Your task to perform on an android device: turn on priority inbox in the gmail app Image 0: 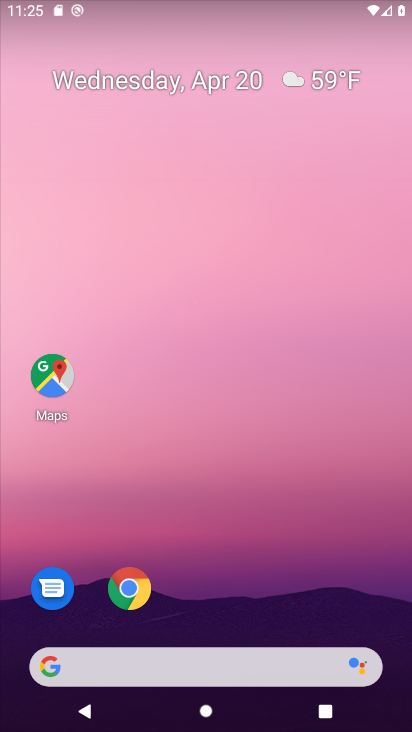
Step 0: drag from (384, 621) to (325, 245)
Your task to perform on an android device: turn on priority inbox in the gmail app Image 1: 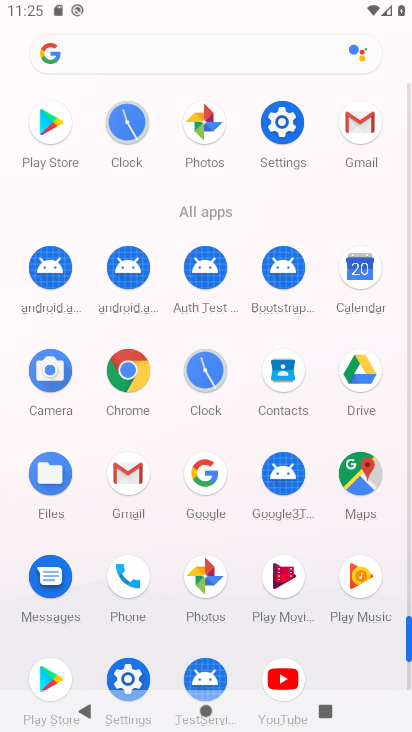
Step 1: click (124, 473)
Your task to perform on an android device: turn on priority inbox in the gmail app Image 2: 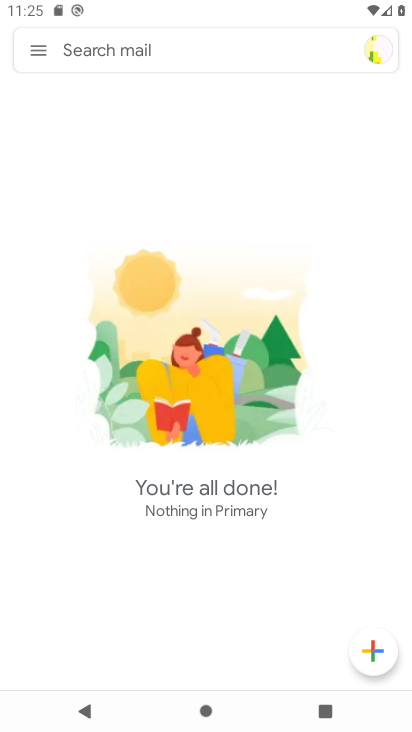
Step 2: click (40, 49)
Your task to perform on an android device: turn on priority inbox in the gmail app Image 3: 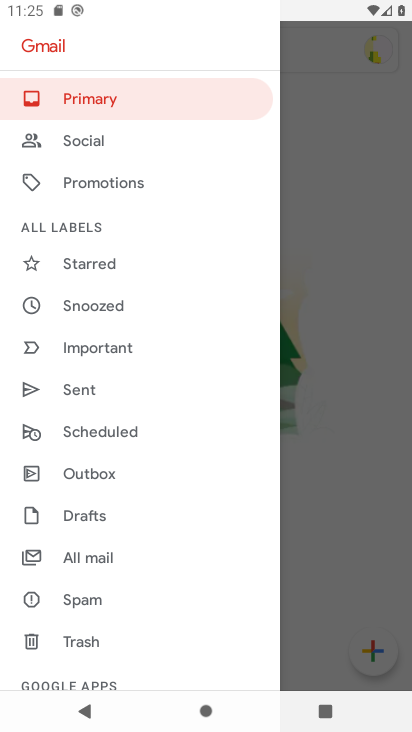
Step 3: drag from (165, 598) to (187, 429)
Your task to perform on an android device: turn on priority inbox in the gmail app Image 4: 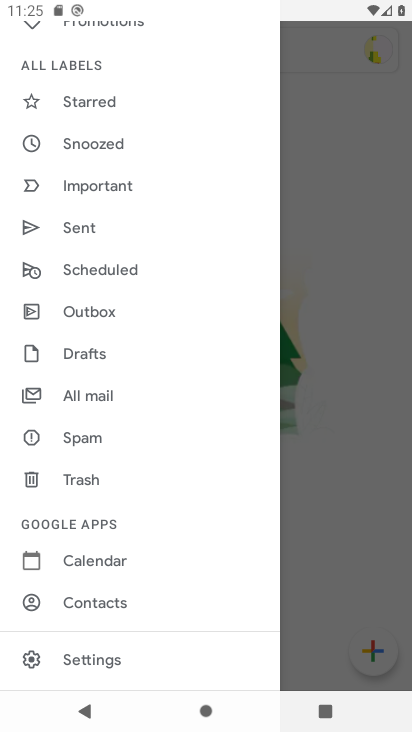
Step 4: click (89, 652)
Your task to perform on an android device: turn on priority inbox in the gmail app Image 5: 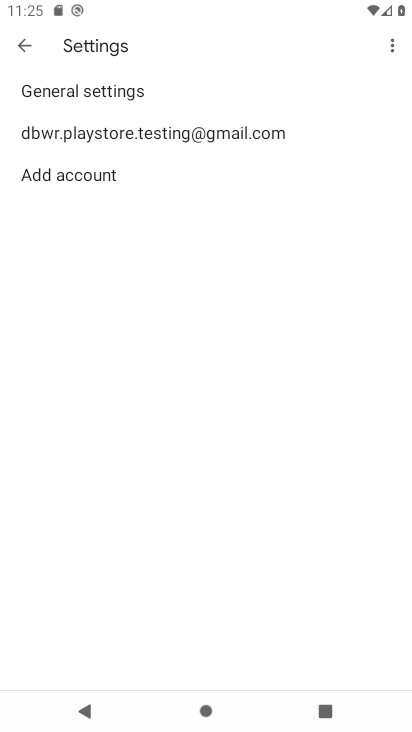
Step 5: click (154, 132)
Your task to perform on an android device: turn on priority inbox in the gmail app Image 6: 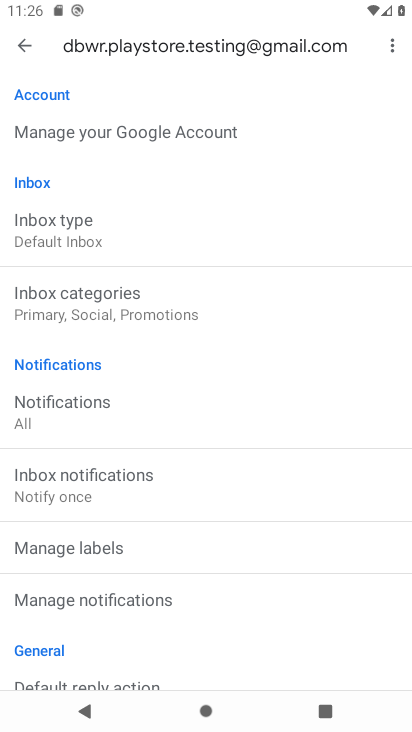
Step 6: click (53, 238)
Your task to perform on an android device: turn on priority inbox in the gmail app Image 7: 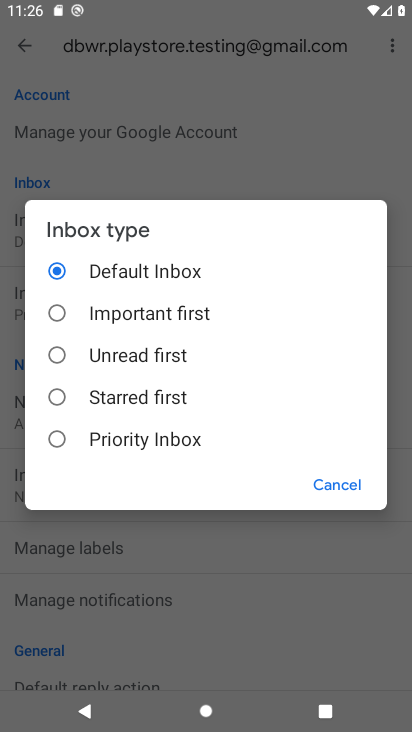
Step 7: click (56, 442)
Your task to perform on an android device: turn on priority inbox in the gmail app Image 8: 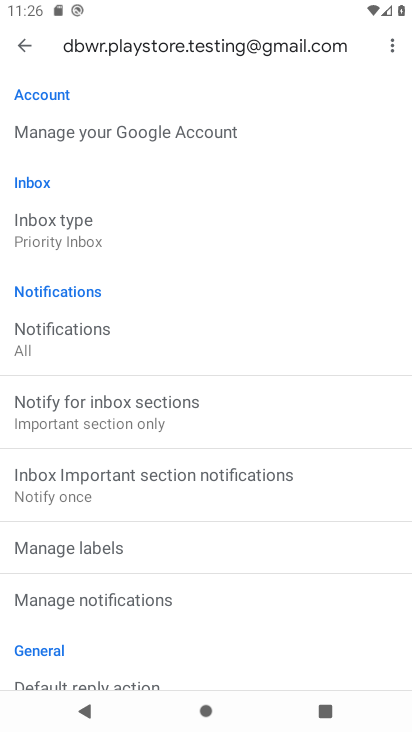
Step 8: task complete